Your task to perform on an android device: Open calendar and show me the second week of next month Image 0: 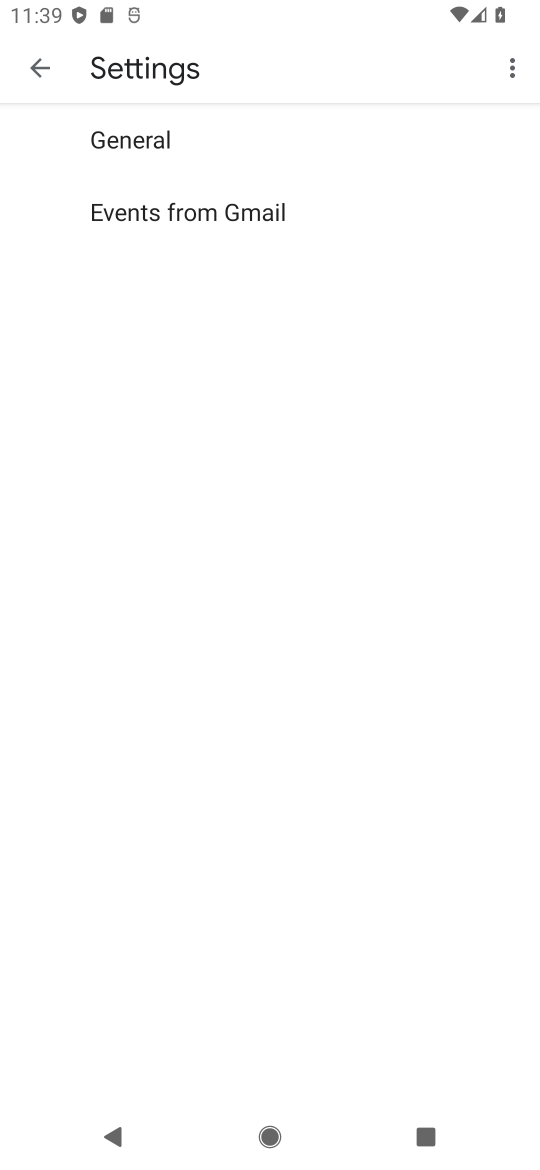
Step 0: press home button
Your task to perform on an android device: Open calendar and show me the second week of next month Image 1: 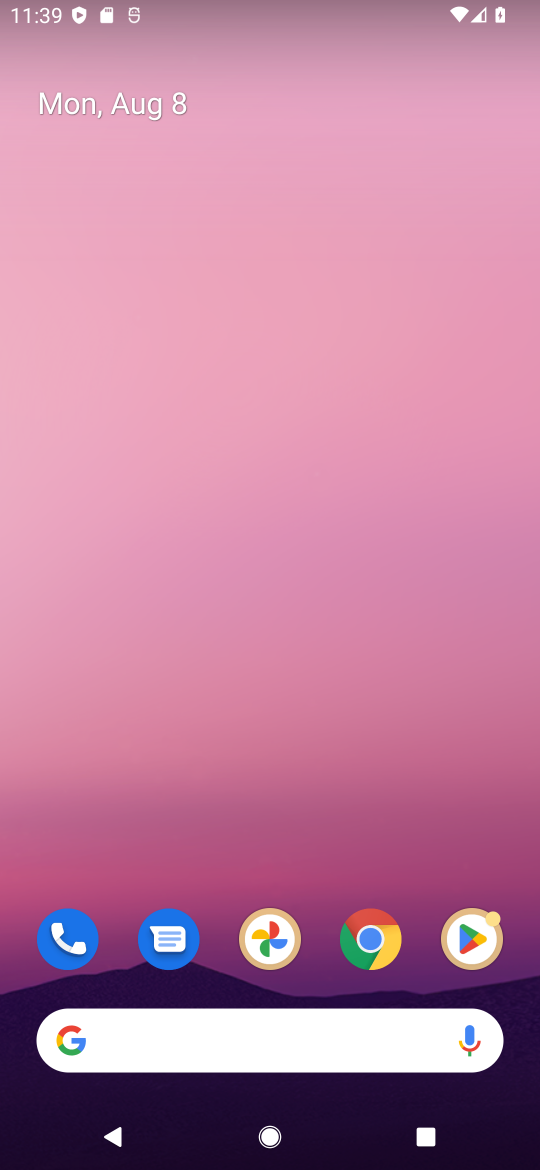
Step 1: drag from (188, 1024) to (276, 315)
Your task to perform on an android device: Open calendar and show me the second week of next month Image 2: 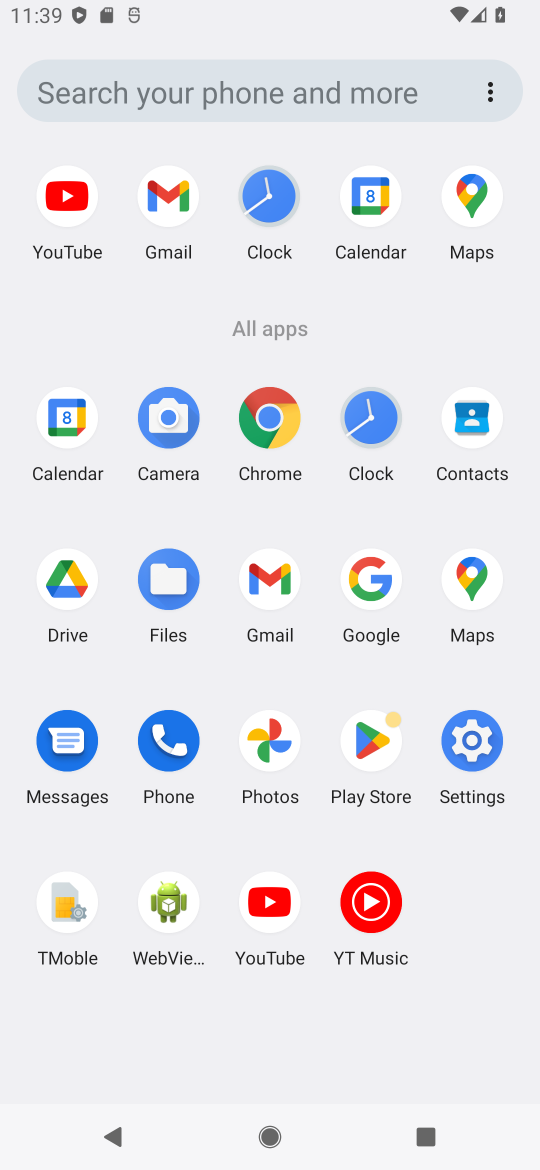
Step 2: click (359, 198)
Your task to perform on an android device: Open calendar and show me the second week of next month Image 3: 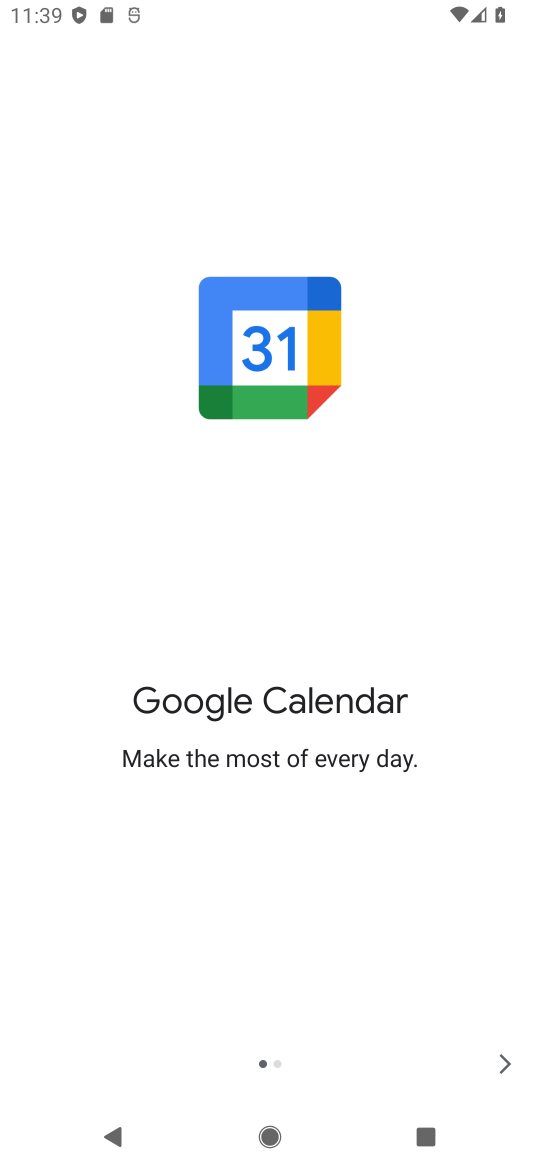
Step 3: click (506, 1062)
Your task to perform on an android device: Open calendar and show me the second week of next month Image 4: 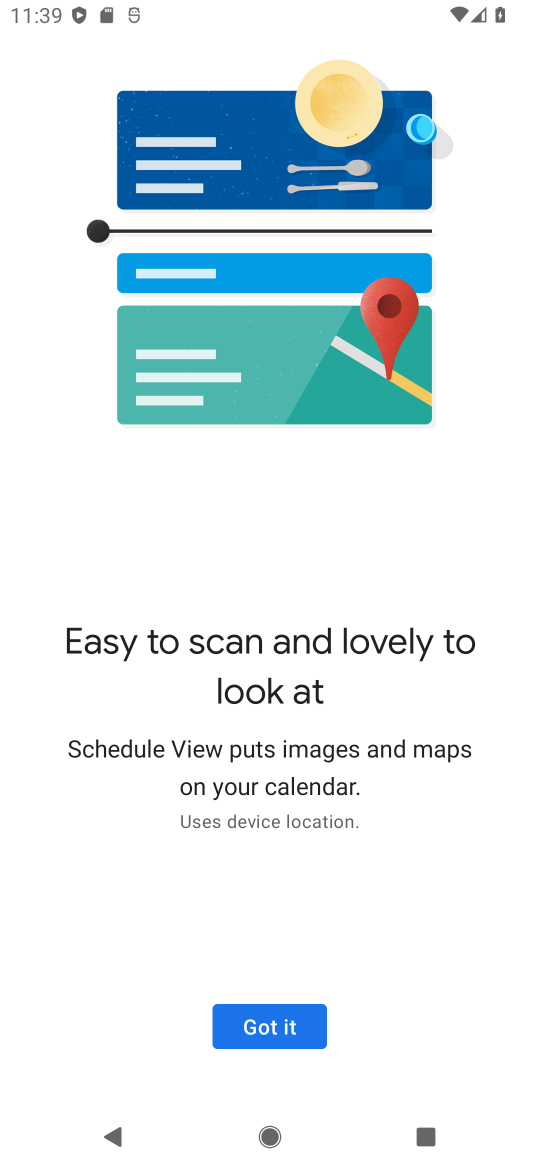
Step 4: click (276, 1015)
Your task to perform on an android device: Open calendar and show me the second week of next month Image 5: 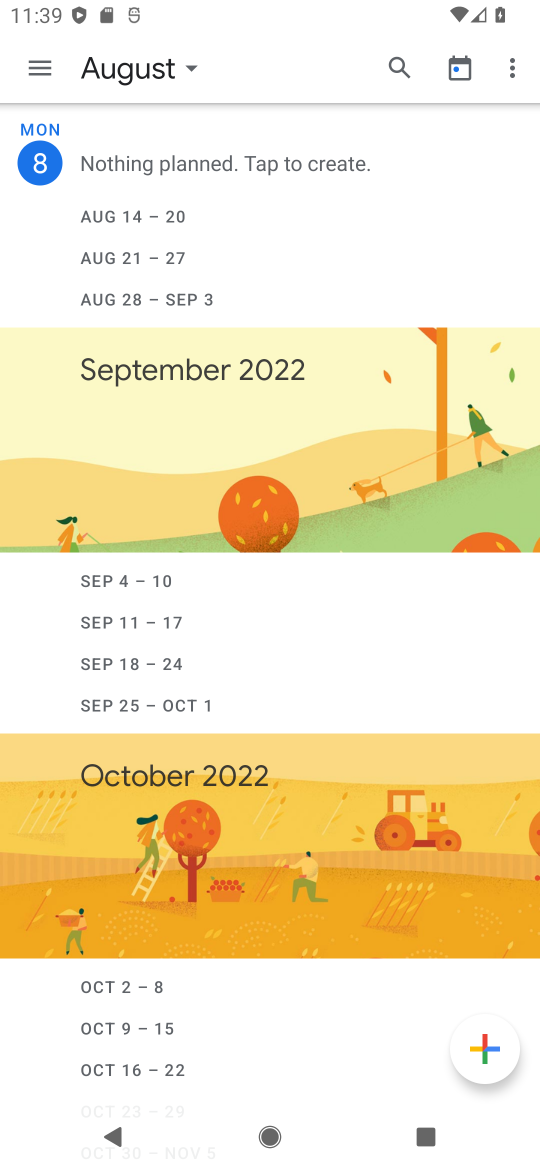
Step 5: click (194, 61)
Your task to perform on an android device: Open calendar and show me the second week of next month Image 6: 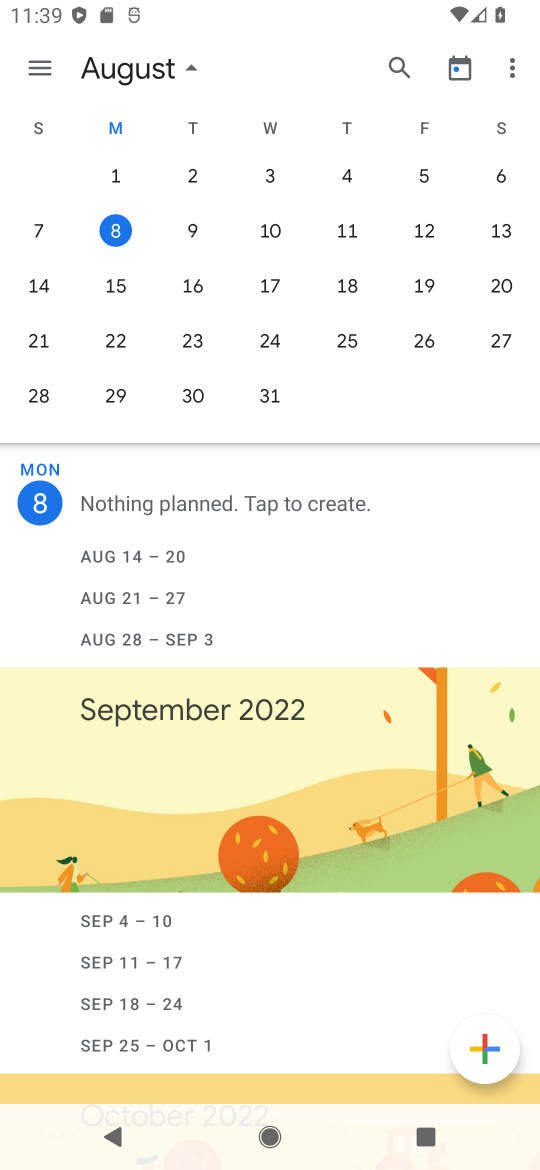
Step 6: drag from (473, 257) to (21, 330)
Your task to perform on an android device: Open calendar and show me the second week of next month Image 7: 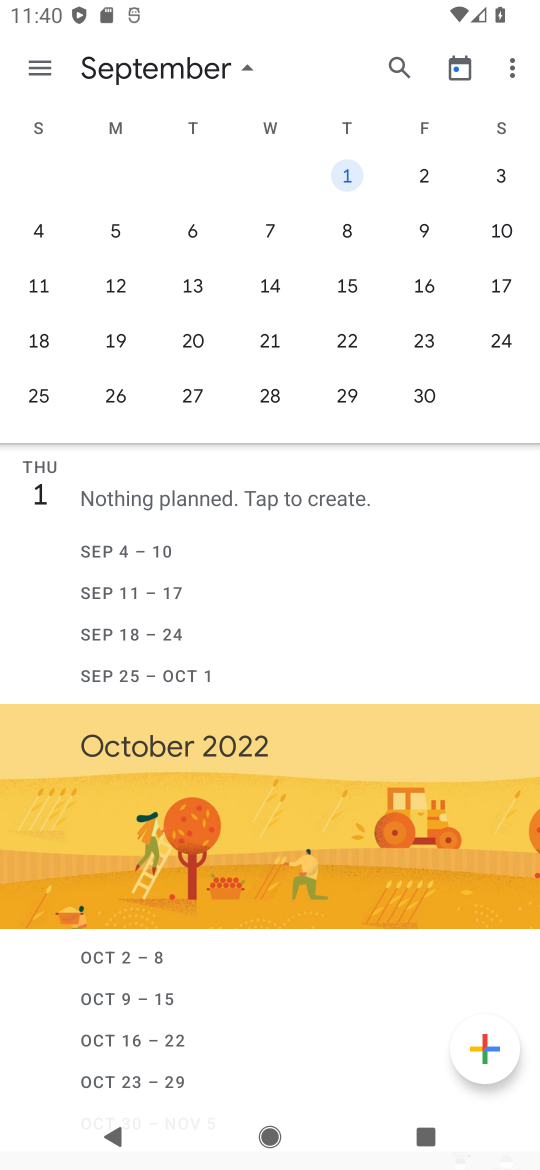
Step 7: click (118, 293)
Your task to perform on an android device: Open calendar and show me the second week of next month Image 8: 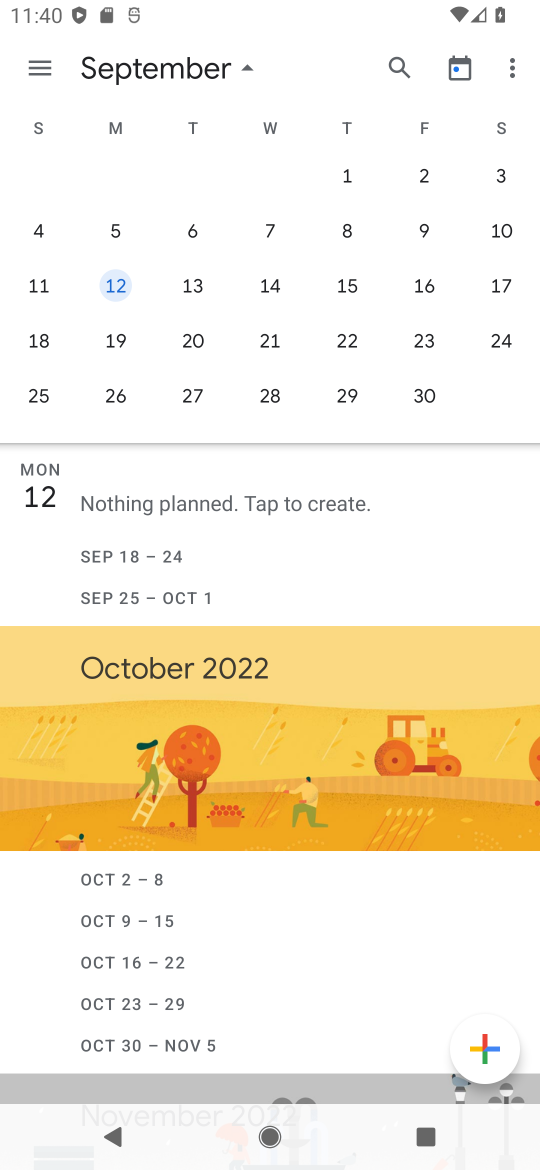
Step 8: click (40, 70)
Your task to perform on an android device: Open calendar and show me the second week of next month Image 9: 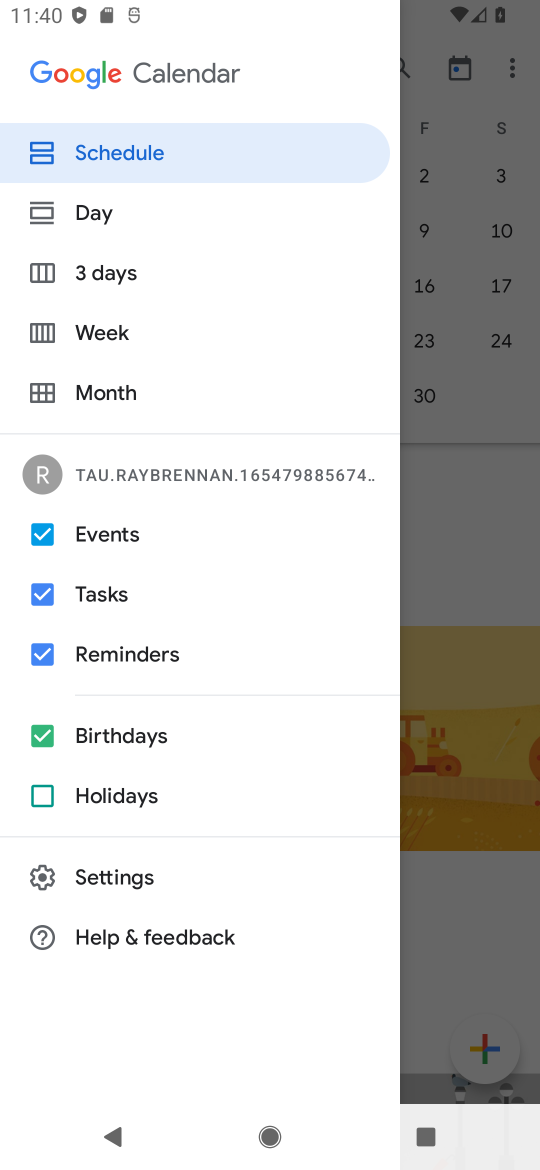
Step 9: click (113, 333)
Your task to perform on an android device: Open calendar and show me the second week of next month Image 10: 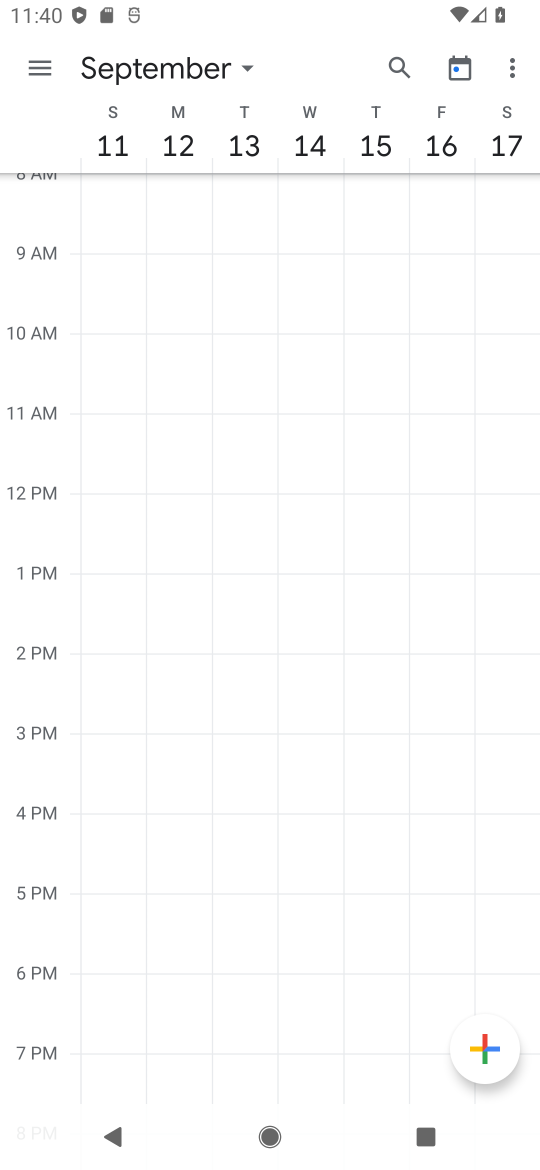
Step 10: task complete